Your task to perform on an android device: turn on showing notifications on the lock screen Image 0: 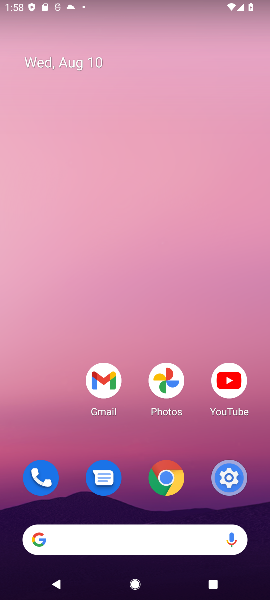
Step 0: drag from (67, 420) to (133, 37)
Your task to perform on an android device: turn on showing notifications on the lock screen Image 1: 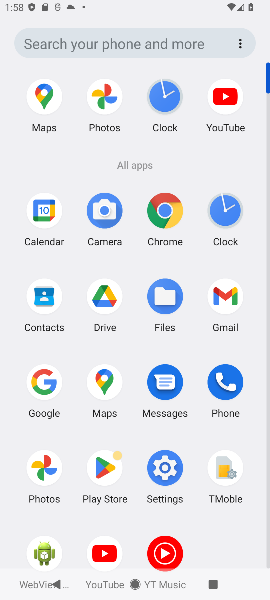
Step 1: click (173, 477)
Your task to perform on an android device: turn on showing notifications on the lock screen Image 2: 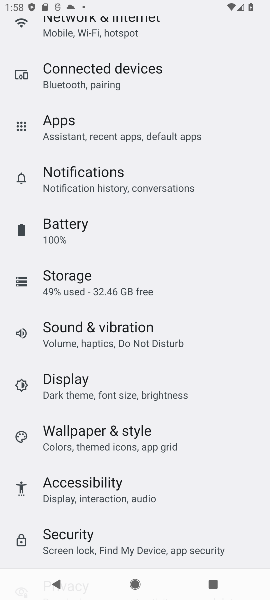
Step 2: task complete